Your task to perform on an android device: turn on notifications settings in the gmail app Image 0: 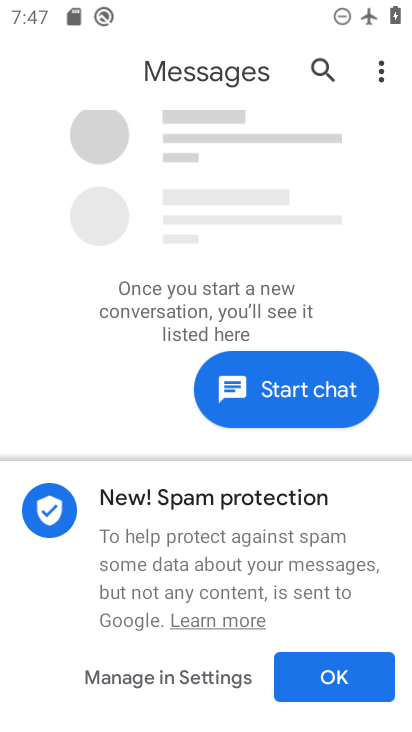
Step 0: press home button
Your task to perform on an android device: turn on notifications settings in the gmail app Image 1: 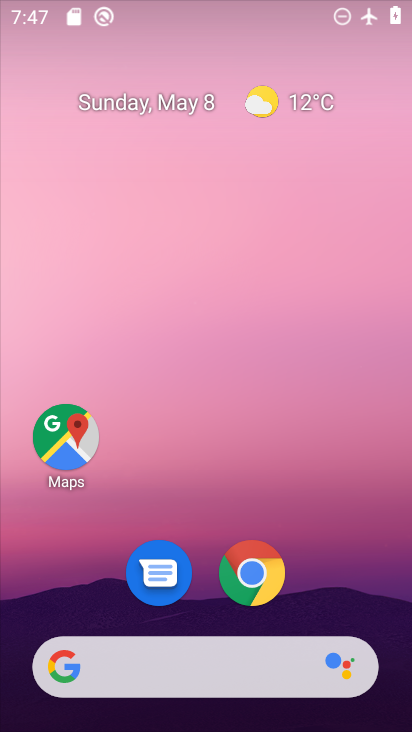
Step 1: drag from (360, 594) to (365, 2)
Your task to perform on an android device: turn on notifications settings in the gmail app Image 2: 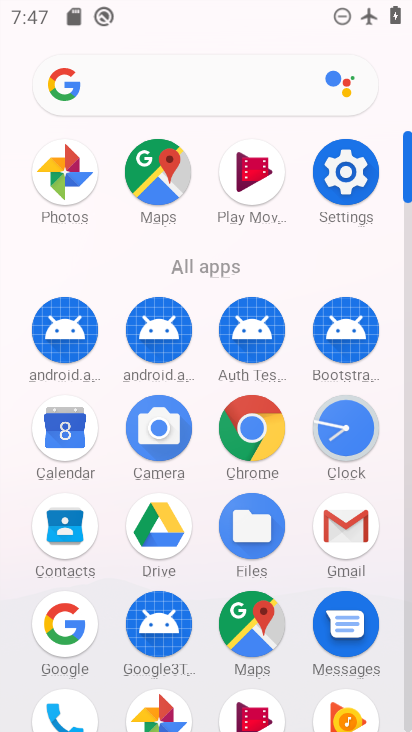
Step 2: click (349, 527)
Your task to perform on an android device: turn on notifications settings in the gmail app Image 3: 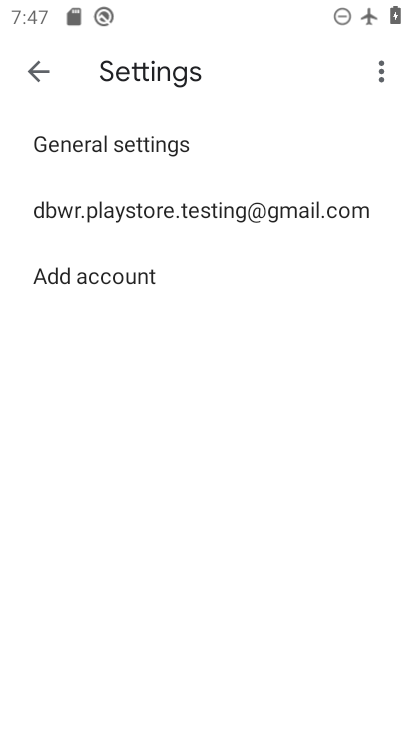
Step 3: click (70, 150)
Your task to perform on an android device: turn on notifications settings in the gmail app Image 4: 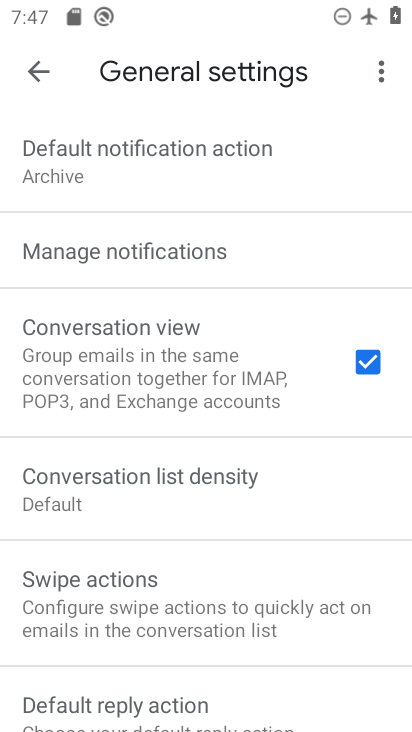
Step 4: click (73, 253)
Your task to perform on an android device: turn on notifications settings in the gmail app Image 5: 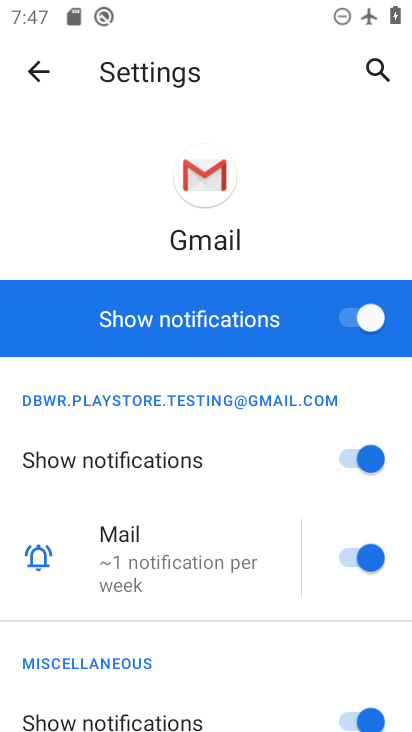
Step 5: task complete